Your task to perform on an android device: Go to Maps Image 0: 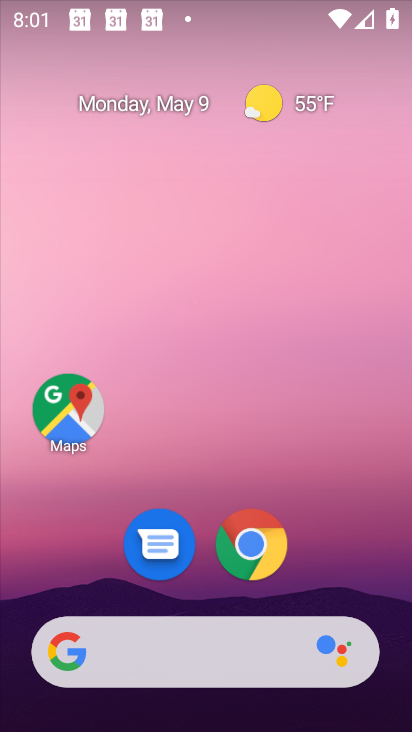
Step 0: click (74, 400)
Your task to perform on an android device: Go to Maps Image 1: 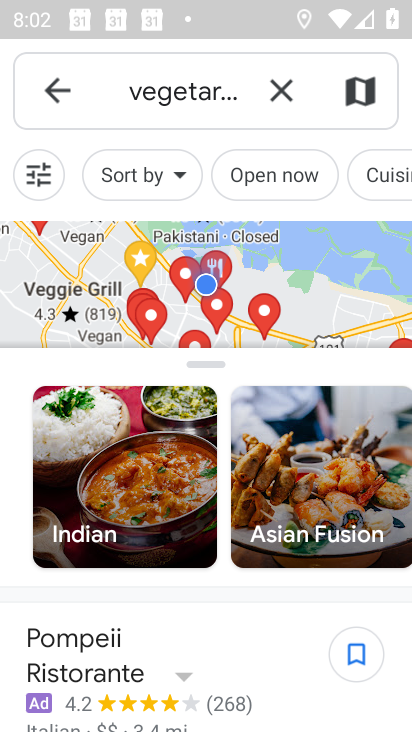
Step 1: task complete